Your task to perform on an android device: Do I have any events today? Image 0: 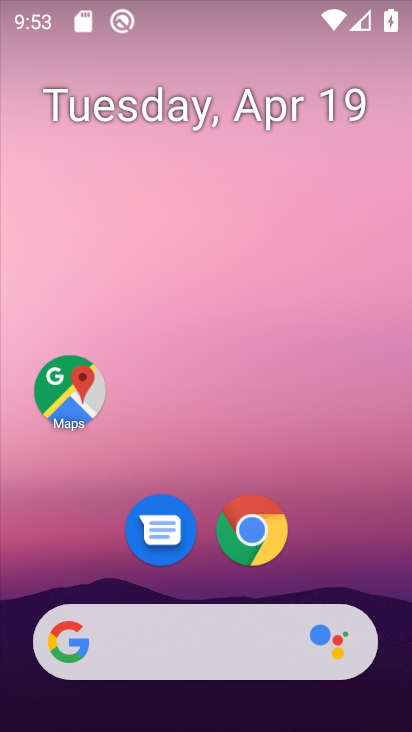
Step 0: drag from (376, 577) to (356, 8)
Your task to perform on an android device: Do I have any events today? Image 1: 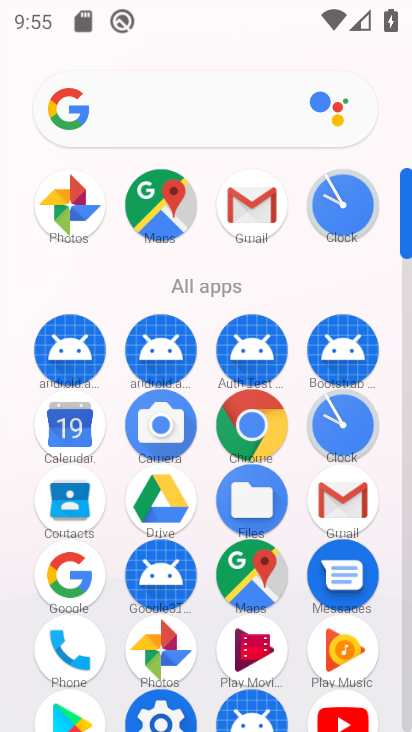
Step 1: click (53, 423)
Your task to perform on an android device: Do I have any events today? Image 2: 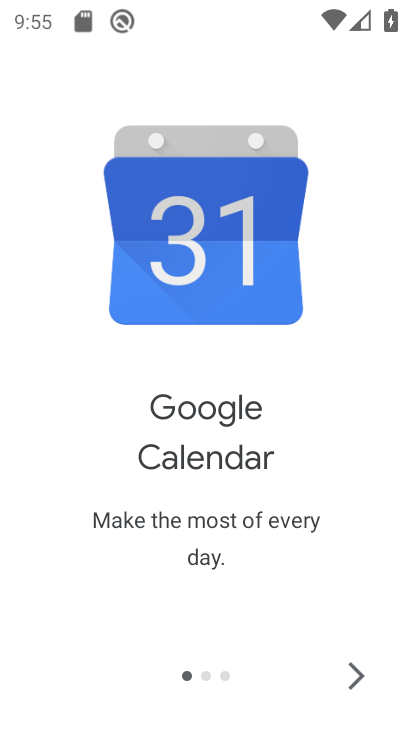
Step 2: click (343, 681)
Your task to perform on an android device: Do I have any events today? Image 3: 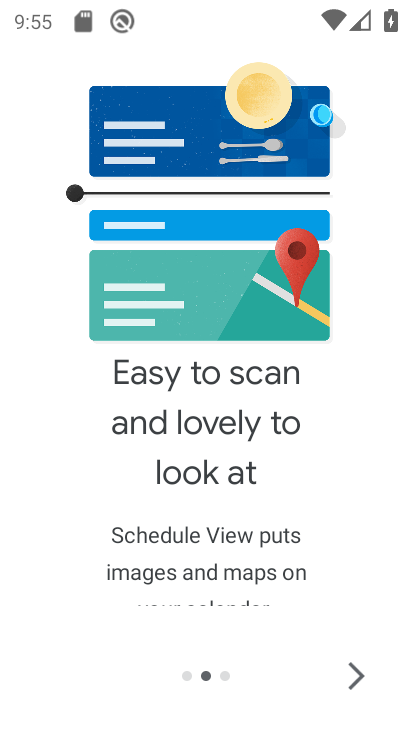
Step 3: click (358, 676)
Your task to perform on an android device: Do I have any events today? Image 4: 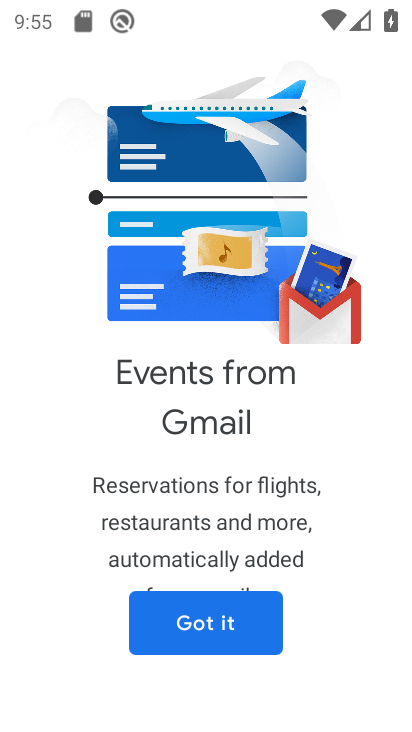
Step 4: click (358, 676)
Your task to perform on an android device: Do I have any events today? Image 5: 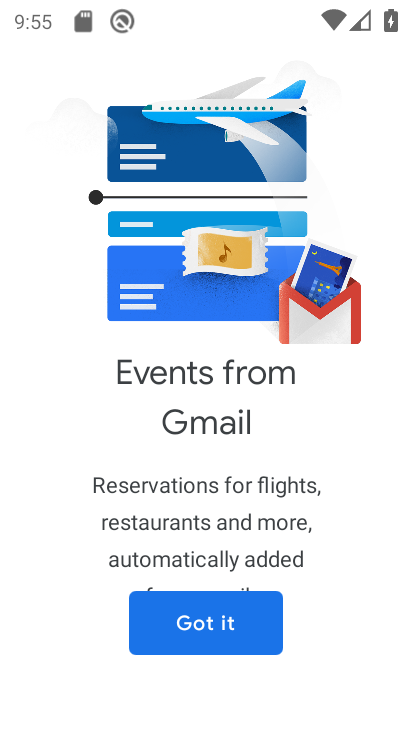
Step 5: click (183, 620)
Your task to perform on an android device: Do I have any events today? Image 6: 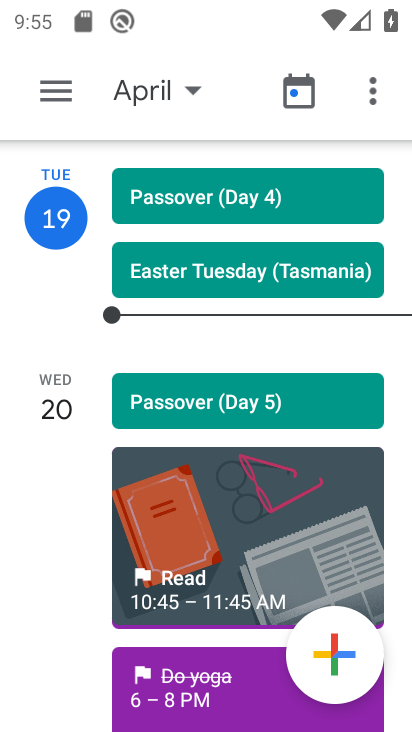
Step 6: click (196, 89)
Your task to perform on an android device: Do I have any events today? Image 7: 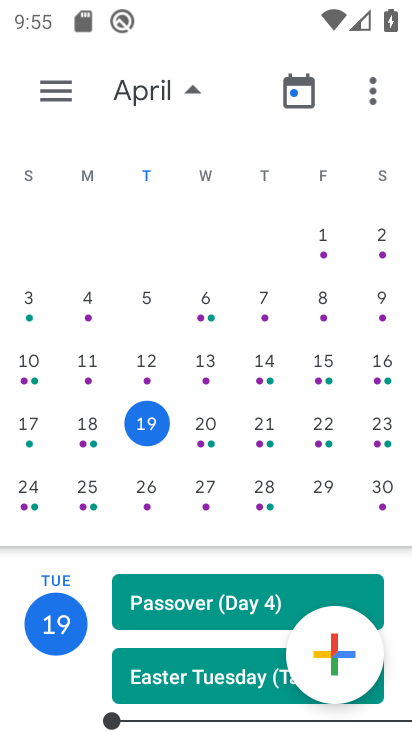
Step 7: click (146, 308)
Your task to perform on an android device: Do I have any events today? Image 8: 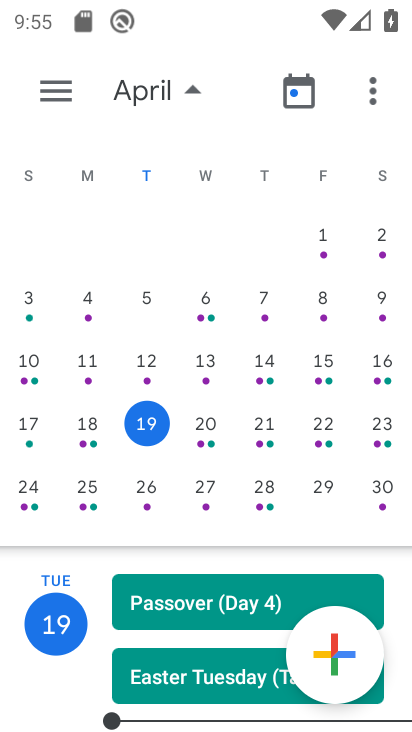
Step 8: click (150, 409)
Your task to perform on an android device: Do I have any events today? Image 9: 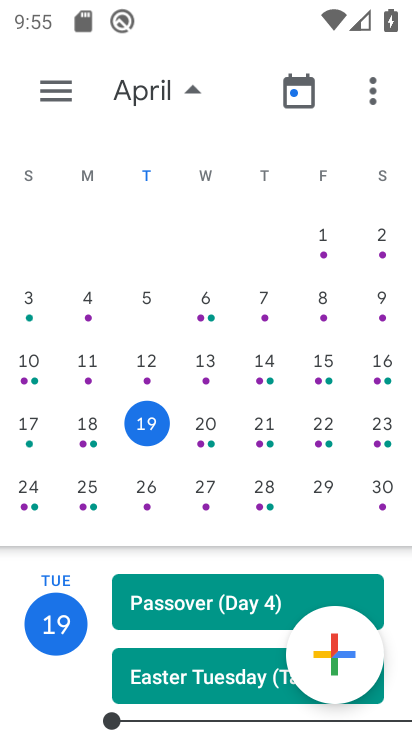
Step 9: click (150, 409)
Your task to perform on an android device: Do I have any events today? Image 10: 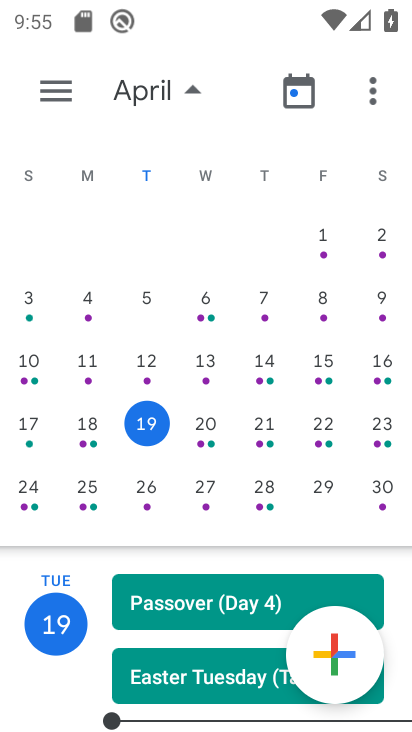
Step 10: click (150, 409)
Your task to perform on an android device: Do I have any events today? Image 11: 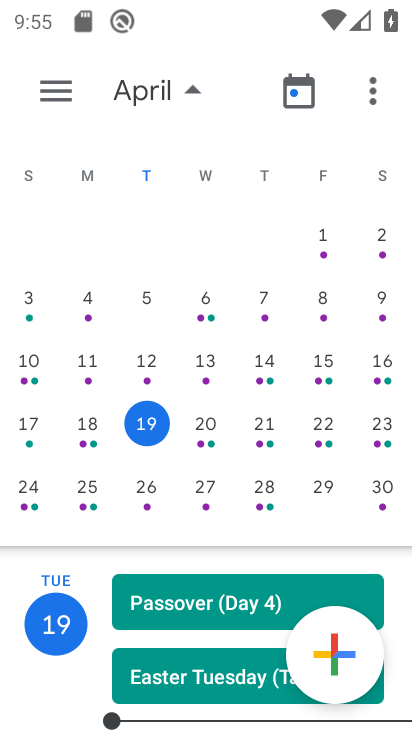
Step 11: click (150, 409)
Your task to perform on an android device: Do I have any events today? Image 12: 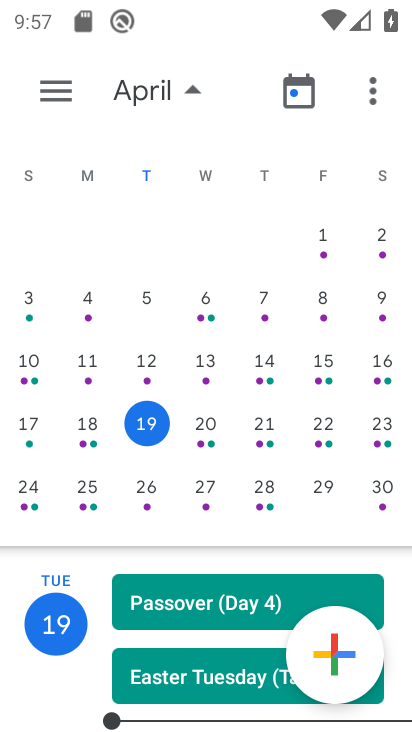
Step 12: click (132, 425)
Your task to perform on an android device: Do I have any events today? Image 13: 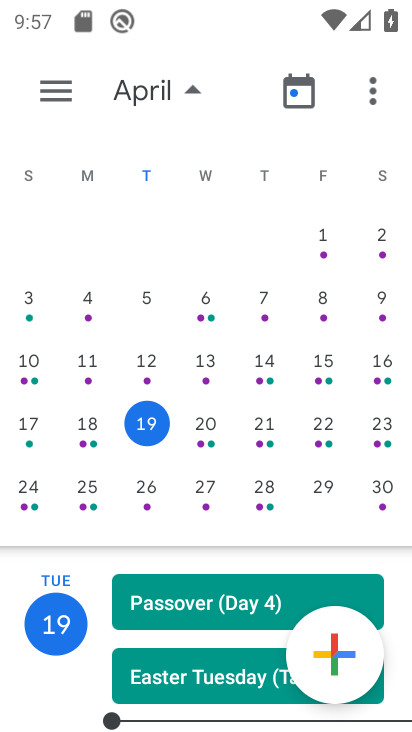
Step 13: task complete